Your task to perform on an android device: Open wifi settings Image 0: 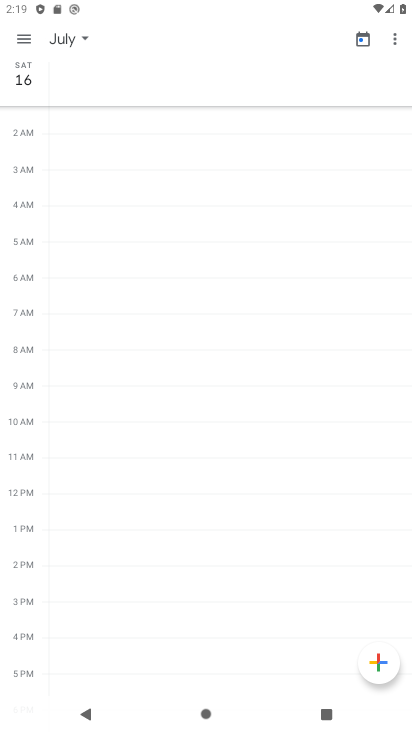
Step 0: press home button
Your task to perform on an android device: Open wifi settings Image 1: 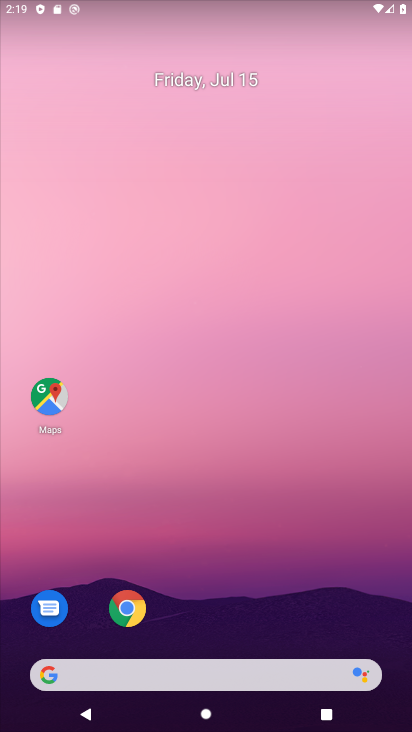
Step 1: drag from (308, 640) to (244, 71)
Your task to perform on an android device: Open wifi settings Image 2: 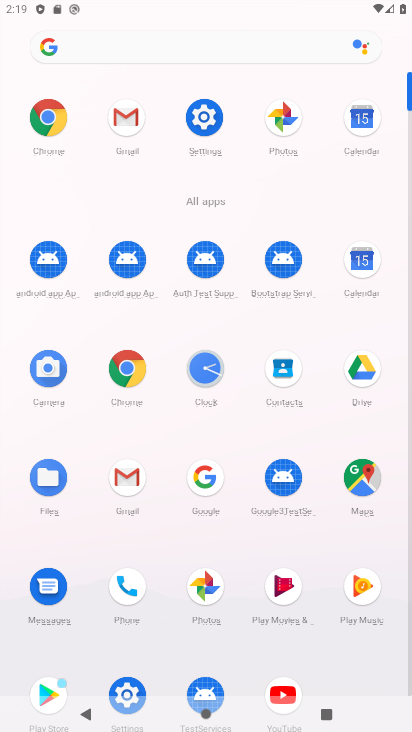
Step 2: click (205, 113)
Your task to perform on an android device: Open wifi settings Image 3: 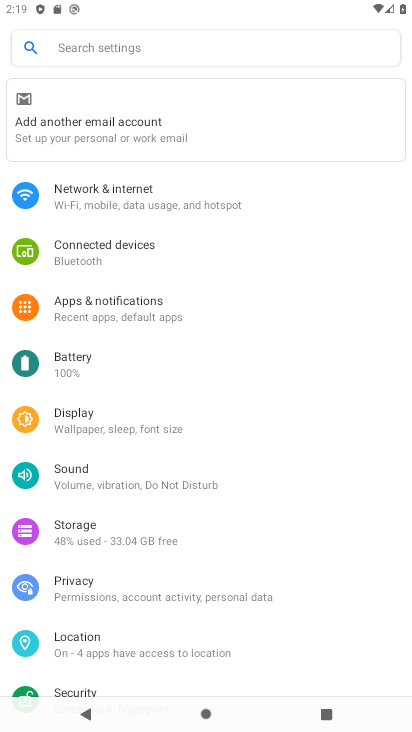
Step 3: click (232, 194)
Your task to perform on an android device: Open wifi settings Image 4: 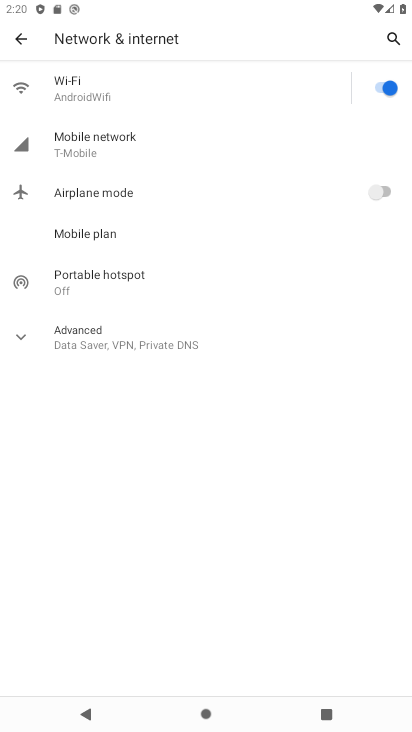
Step 4: click (179, 97)
Your task to perform on an android device: Open wifi settings Image 5: 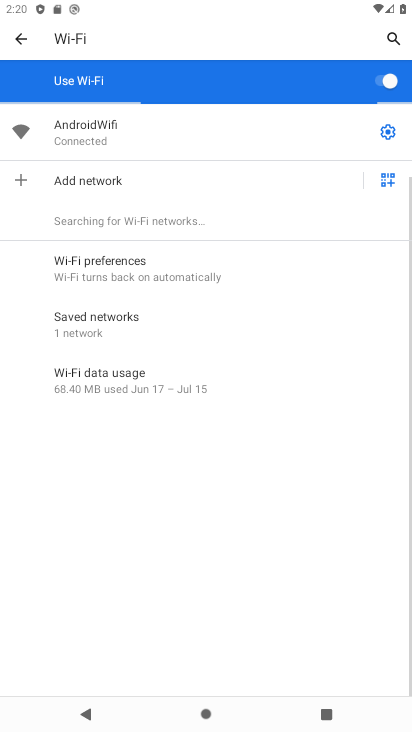
Step 5: task complete